Your task to perform on an android device: check data usage Image 0: 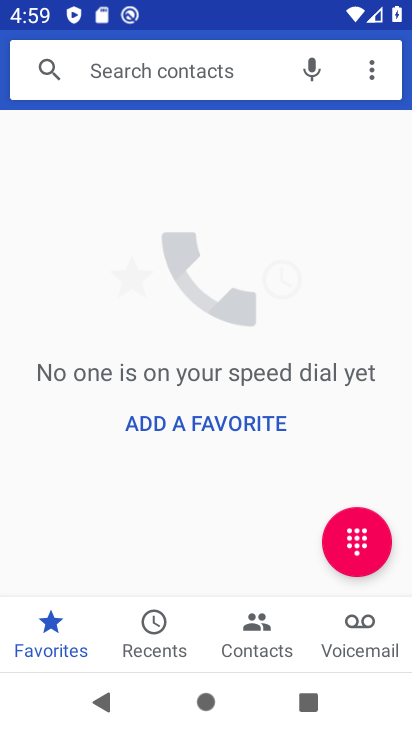
Step 0: press home button
Your task to perform on an android device: check data usage Image 1: 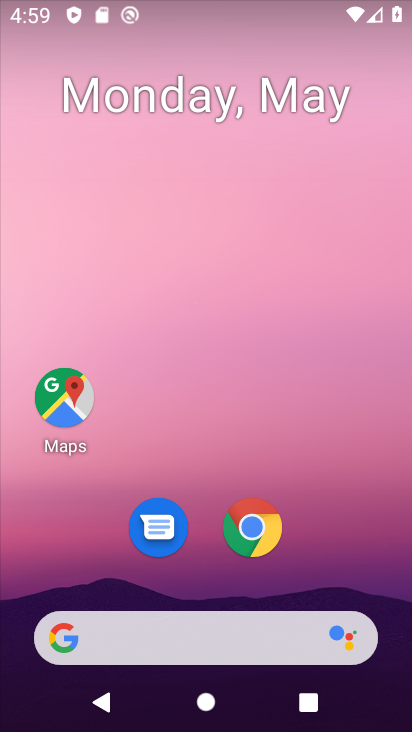
Step 1: drag from (364, 554) to (328, 172)
Your task to perform on an android device: check data usage Image 2: 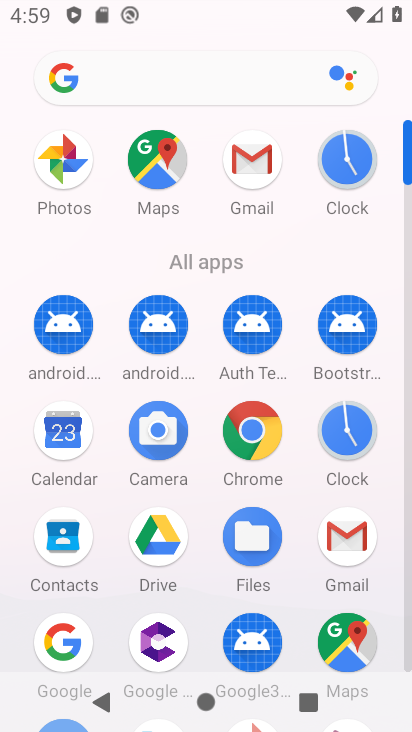
Step 2: click (410, 649)
Your task to perform on an android device: check data usage Image 3: 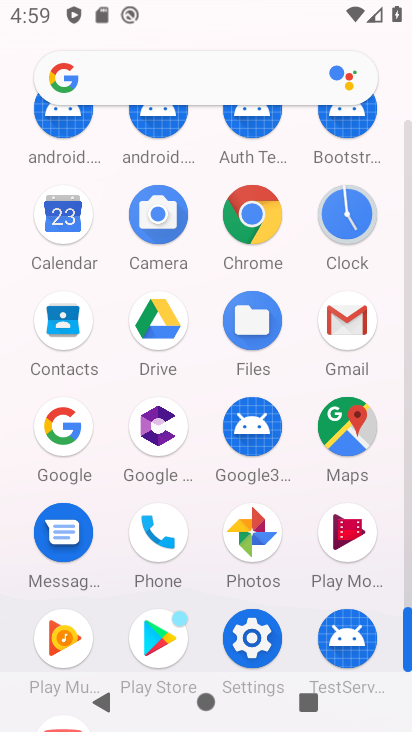
Step 3: click (248, 643)
Your task to perform on an android device: check data usage Image 4: 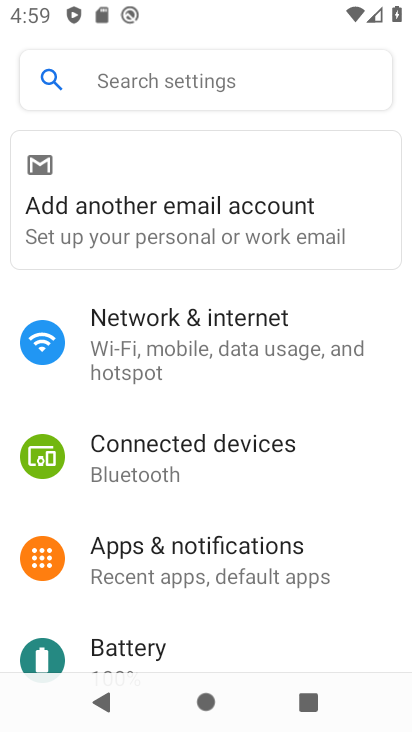
Step 4: click (254, 328)
Your task to perform on an android device: check data usage Image 5: 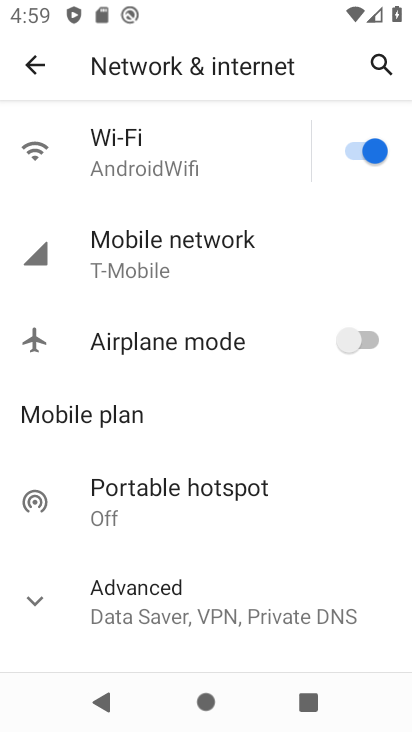
Step 5: click (172, 147)
Your task to perform on an android device: check data usage Image 6: 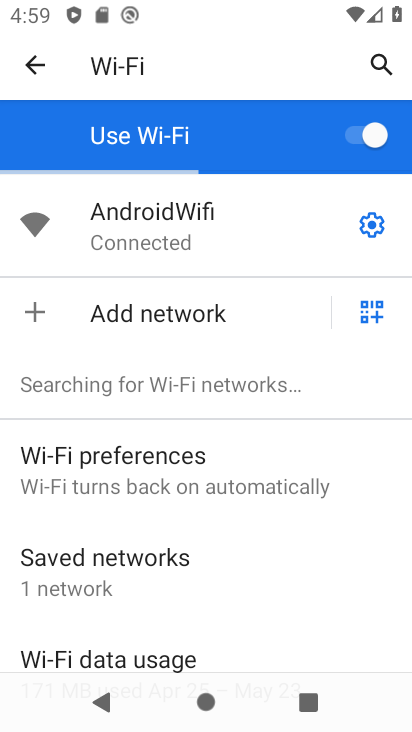
Step 6: click (193, 652)
Your task to perform on an android device: check data usage Image 7: 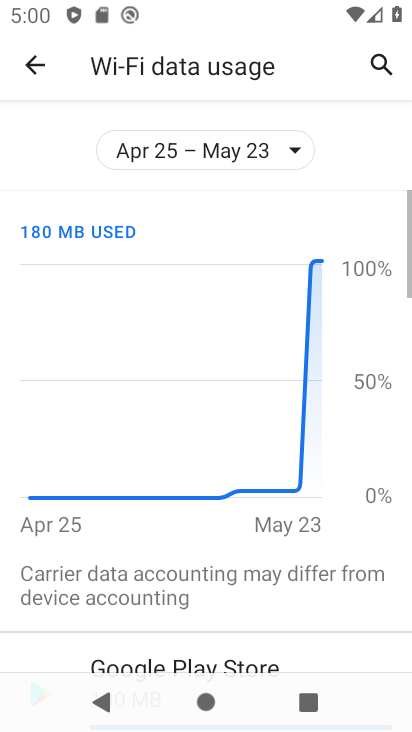
Step 7: task complete